Your task to perform on an android device: Go to wifi settings Image 0: 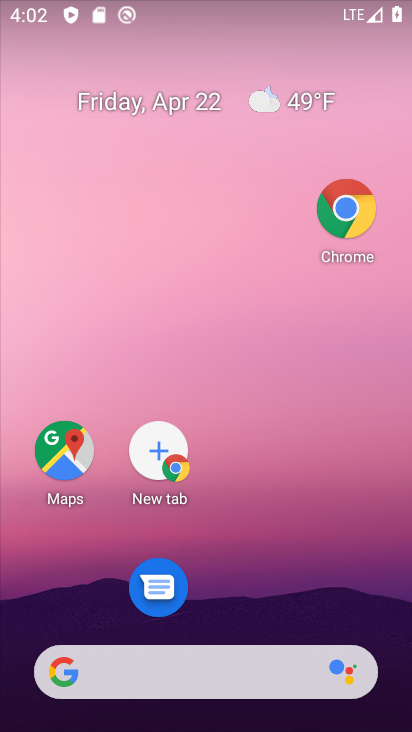
Step 0: drag from (189, 37) to (219, 492)
Your task to perform on an android device: Go to wifi settings Image 1: 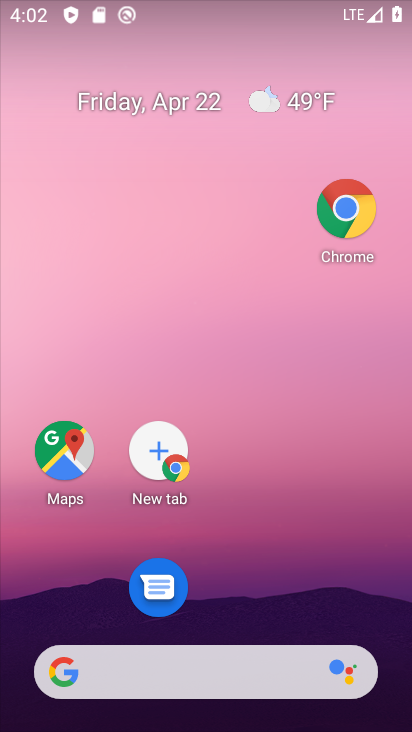
Step 1: drag from (195, 13) to (44, 644)
Your task to perform on an android device: Go to wifi settings Image 2: 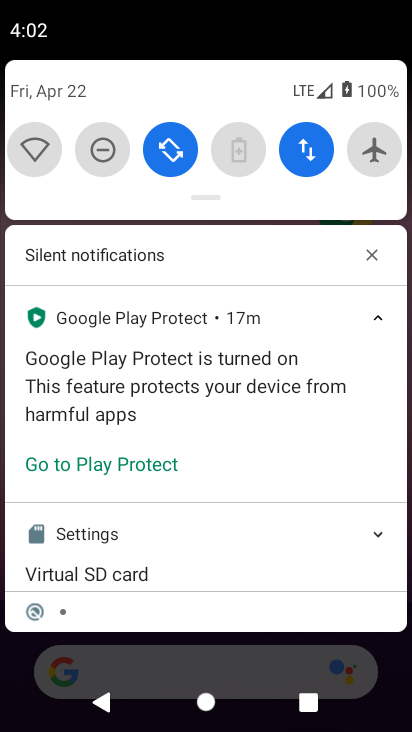
Step 2: click (47, 156)
Your task to perform on an android device: Go to wifi settings Image 3: 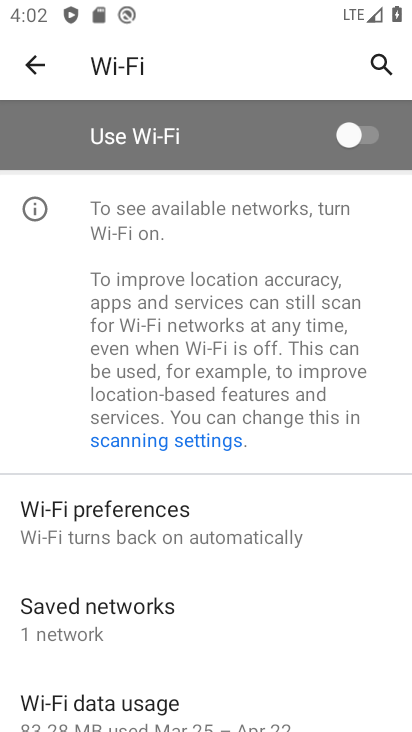
Step 3: task complete